Your task to perform on an android device: Open CNN.com Image 0: 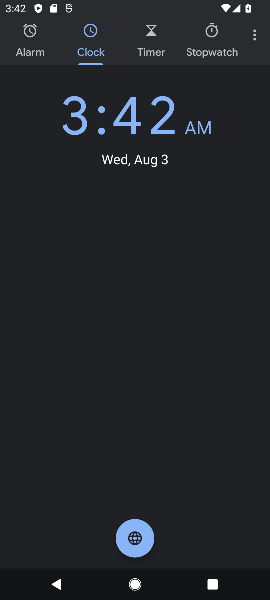
Step 0: press home button
Your task to perform on an android device: Open CNN.com Image 1: 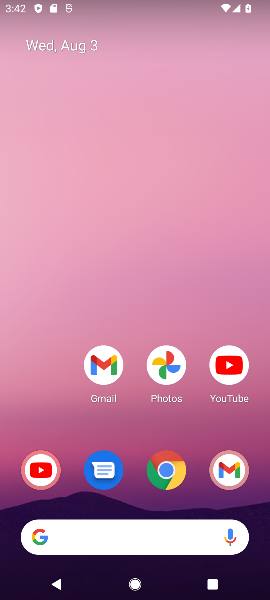
Step 1: click (194, 506)
Your task to perform on an android device: Open CNN.com Image 2: 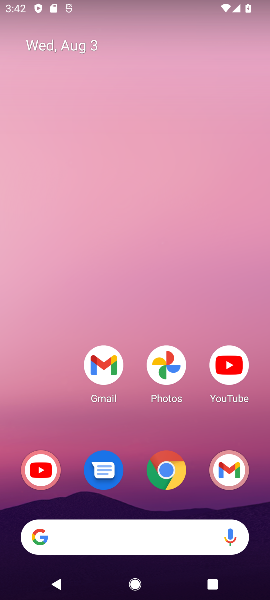
Step 2: click (175, 477)
Your task to perform on an android device: Open CNN.com Image 3: 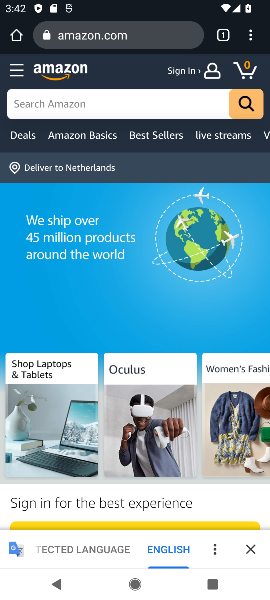
Step 3: click (145, 36)
Your task to perform on an android device: Open CNN.com Image 4: 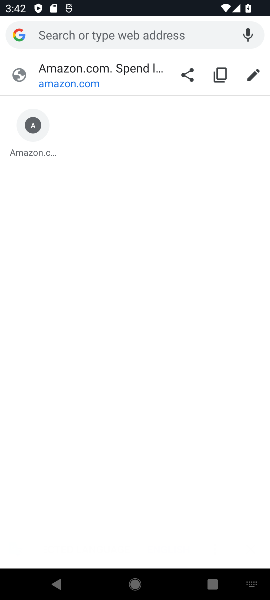
Step 4: type "CNN.com"
Your task to perform on an android device: Open CNN.com Image 5: 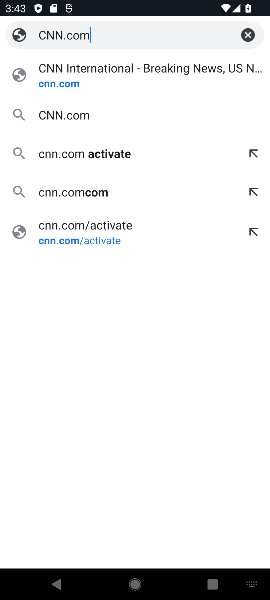
Step 5: click (75, 115)
Your task to perform on an android device: Open CNN.com Image 6: 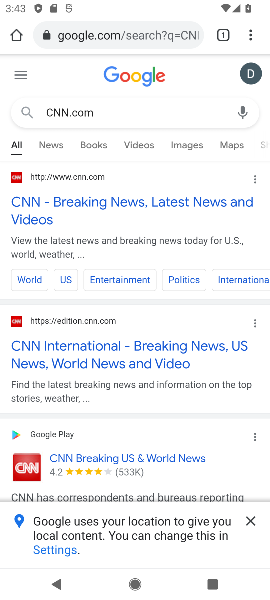
Step 6: click (110, 197)
Your task to perform on an android device: Open CNN.com Image 7: 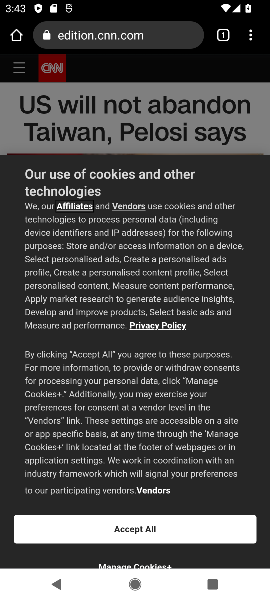
Step 7: task complete